Your task to perform on an android device: change your default location settings in chrome Image 0: 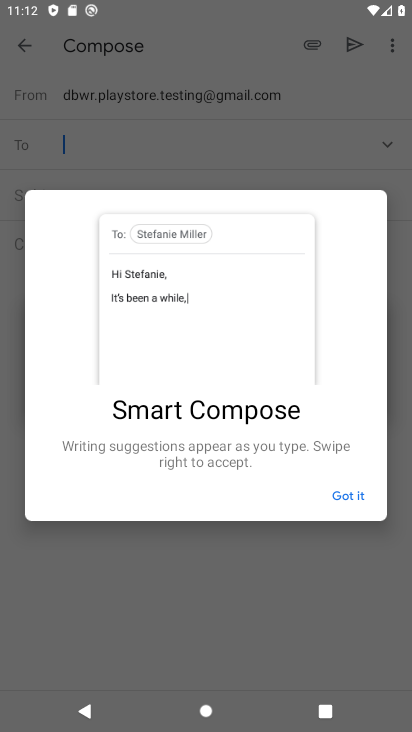
Step 0: press home button
Your task to perform on an android device: change your default location settings in chrome Image 1: 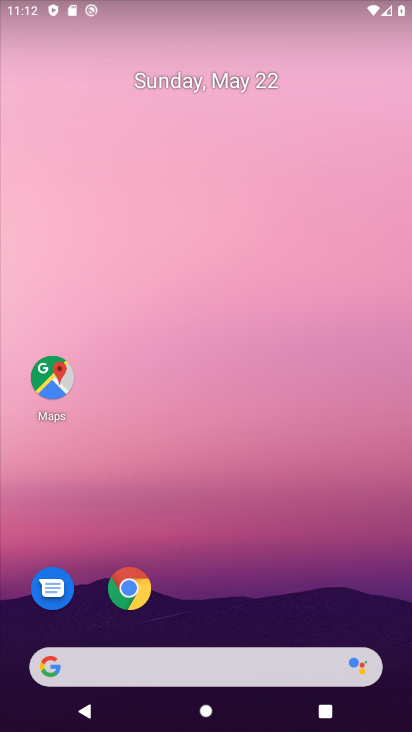
Step 1: click (128, 588)
Your task to perform on an android device: change your default location settings in chrome Image 2: 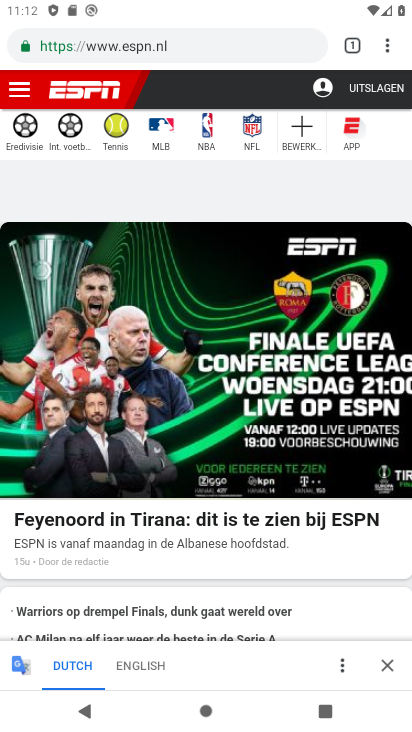
Step 2: click (388, 44)
Your task to perform on an android device: change your default location settings in chrome Image 3: 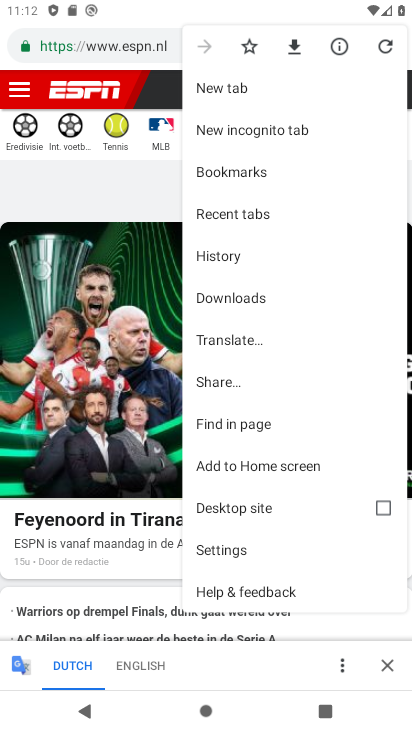
Step 3: click (214, 547)
Your task to perform on an android device: change your default location settings in chrome Image 4: 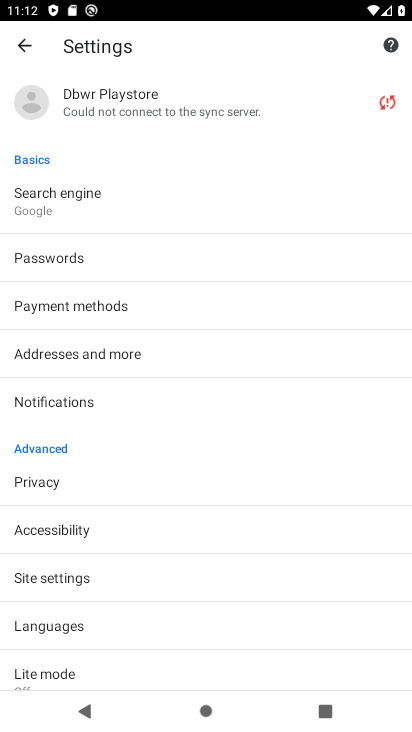
Step 4: drag from (151, 624) to (184, 199)
Your task to perform on an android device: change your default location settings in chrome Image 5: 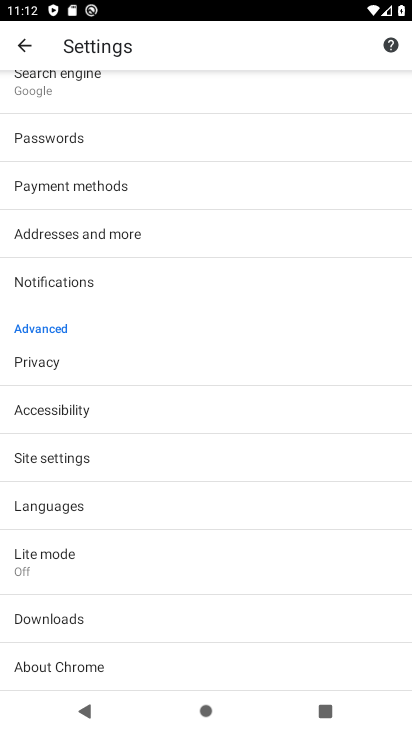
Step 5: click (99, 460)
Your task to perform on an android device: change your default location settings in chrome Image 6: 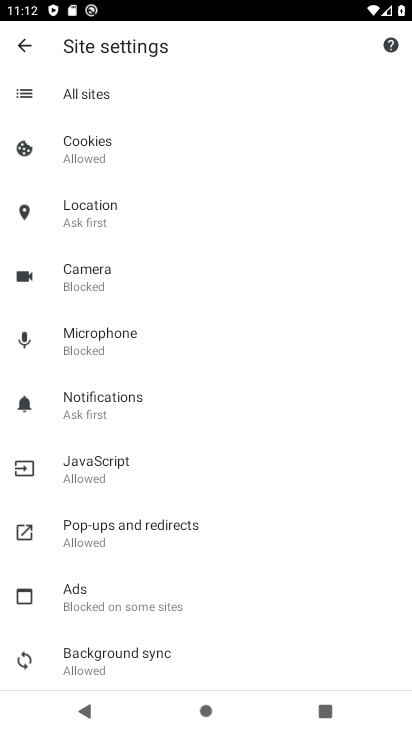
Step 6: click (93, 202)
Your task to perform on an android device: change your default location settings in chrome Image 7: 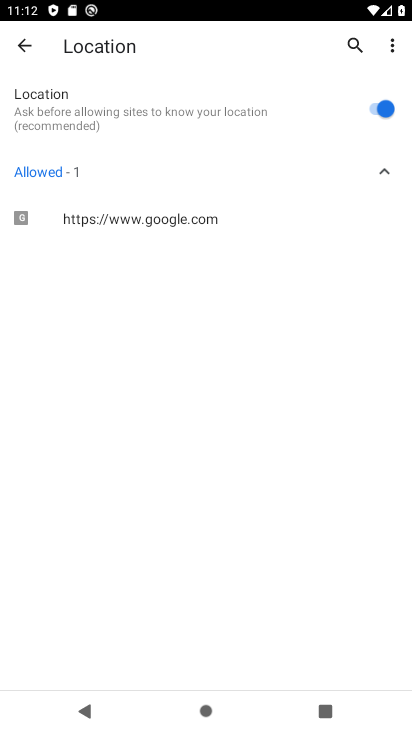
Step 7: click (383, 103)
Your task to perform on an android device: change your default location settings in chrome Image 8: 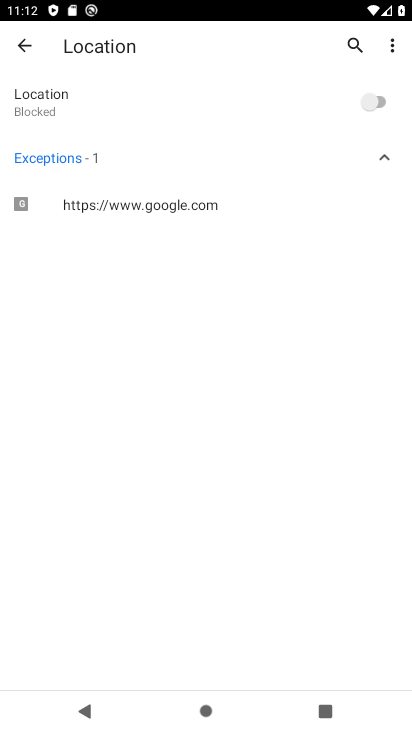
Step 8: task complete